Your task to perform on an android device: open wifi settings Image 0: 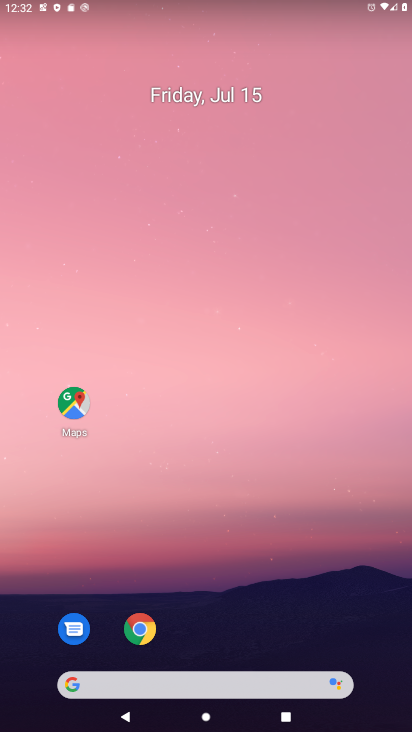
Step 0: press home button
Your task to perform on an android device: open wifi settings Image 1: 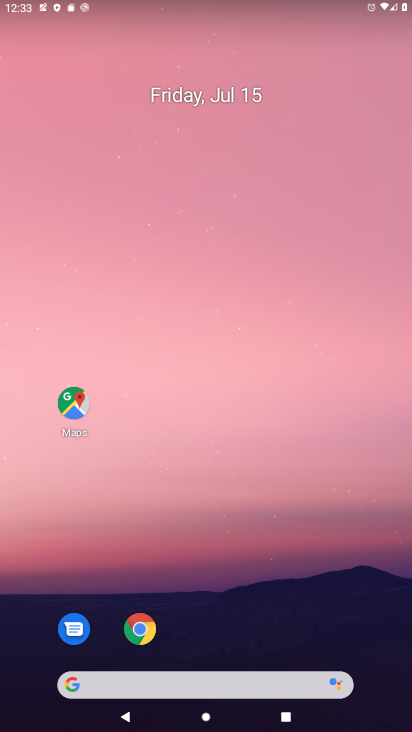
Step 1: drag from (231, 659) to (380, 0)
Your task to perform on an android device: open wifi settings Image 2: 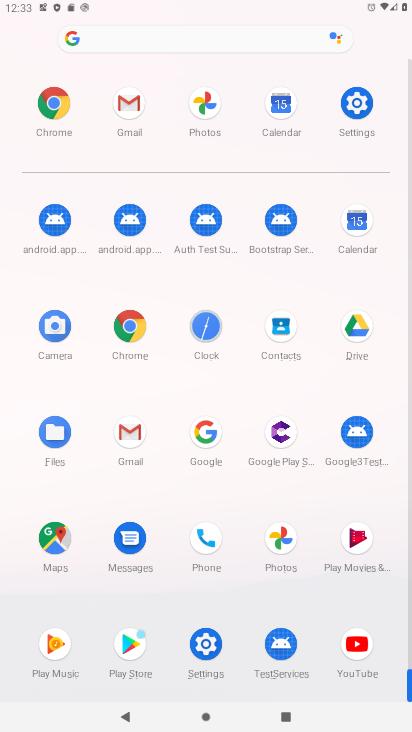
Step 2: click (350, 133)
Your task to perform on an android device: open wifi settings Image 3: 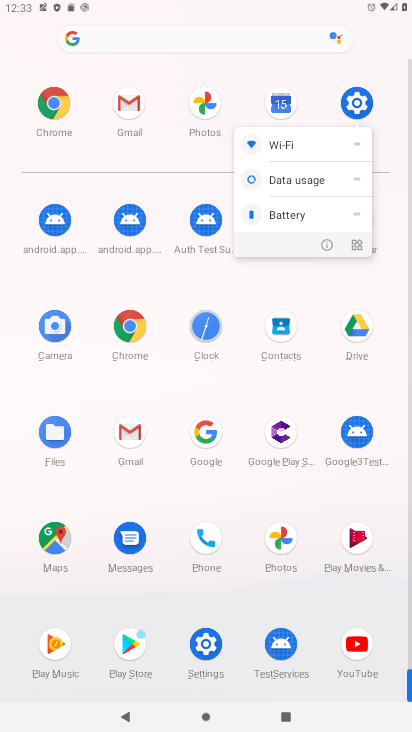
Step 3: click (360, 118)
Your task to perform on an android device: open wifi settings Image 4: 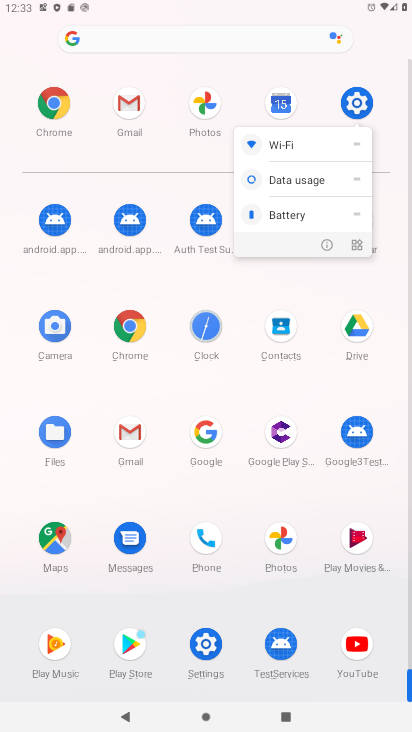
Step 4: click (369, 95)
Your task to perform on an android device: open wifi settings Image 5: 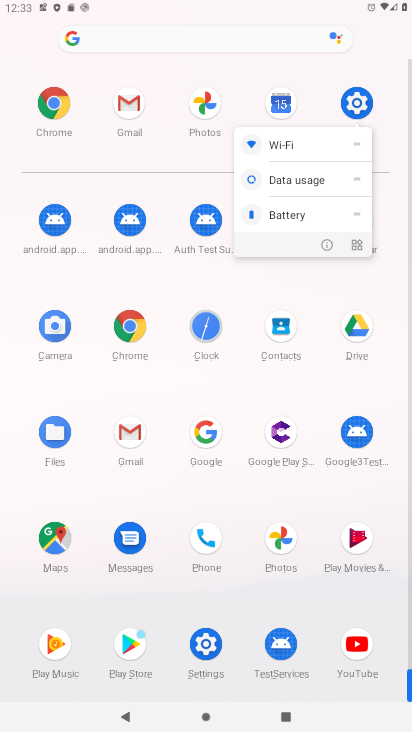
Step 5: click (357, 111)
Your task to perform on an android device: open wifi settings Image 6: 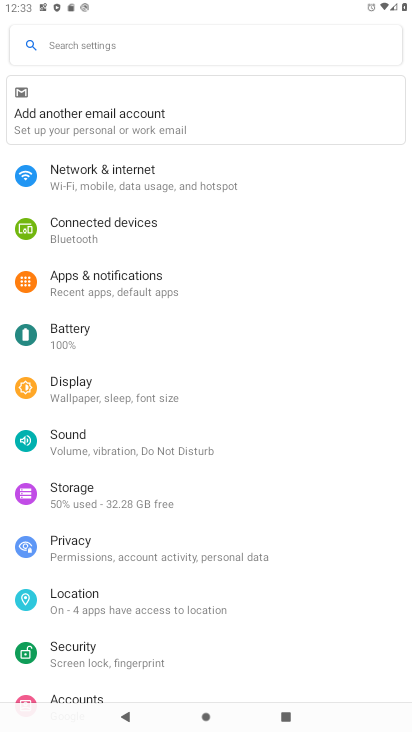
Step 6: click (105, 174)
Your task to perform on an android device: open wifi settings Image 7: 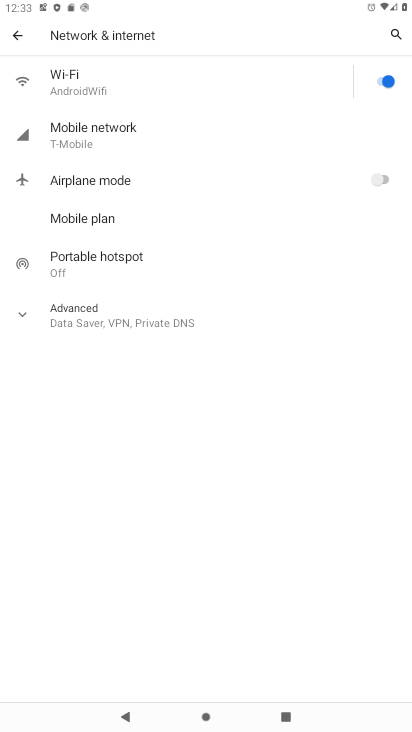
Step 7: click (71, 69)
Your task to perform on an android device: open wifi settings Image 8: 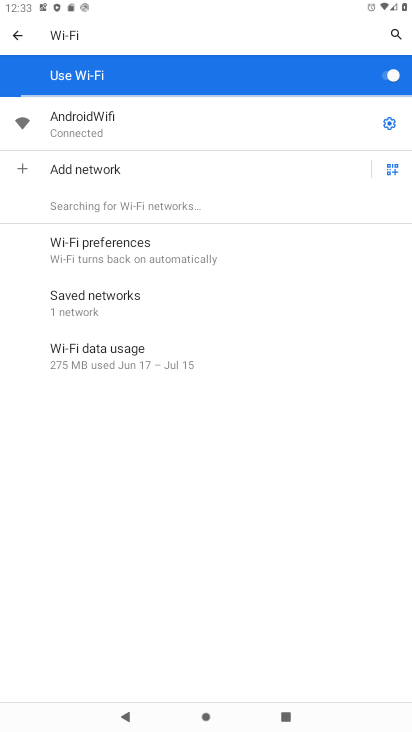
Step 8: task complete